Your task to perform on an android device: turn off location Image 0: 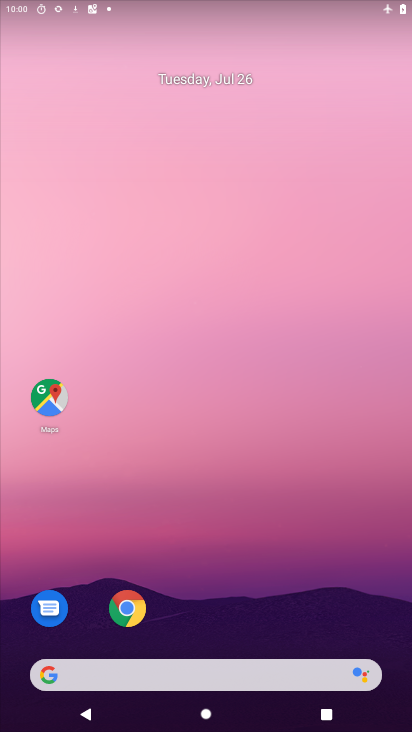
Step 0: drag from (226, 613) to (193, 132)
Your task to perform on an android device: turn off location Image 1: 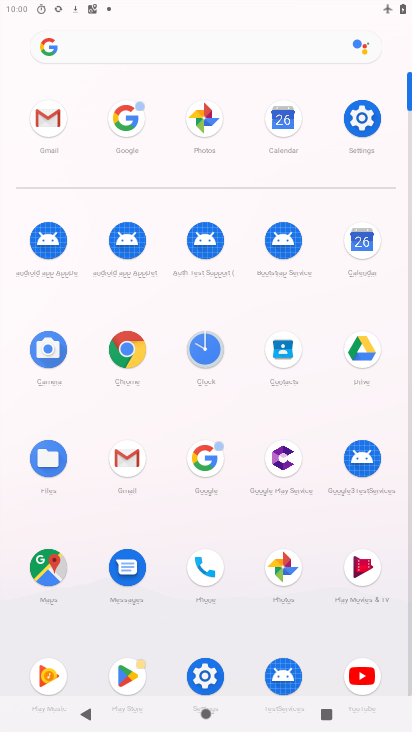
Step 1: click (364, 120)
Your task to perform on an android device: turn off location Image 2: 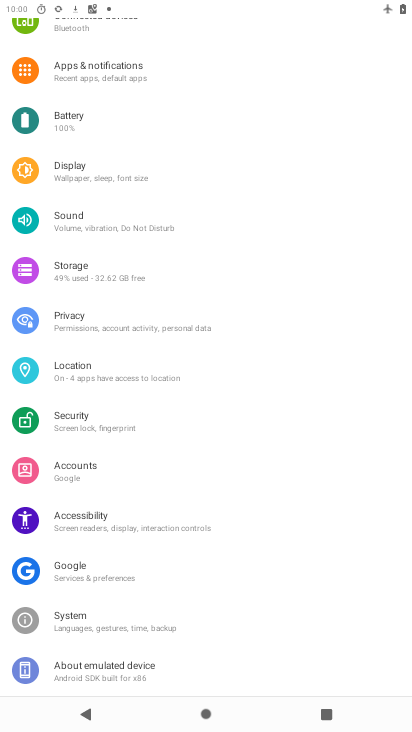
Step 2: click (92, 375)
Your task to perform on an android device: turn off location Image 3: 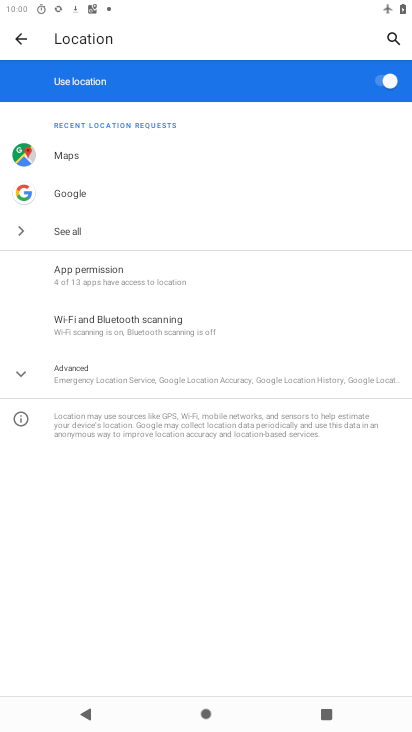
Step 3: click (376, 83)
Your task to perform on an android device: turn off location Image 4: 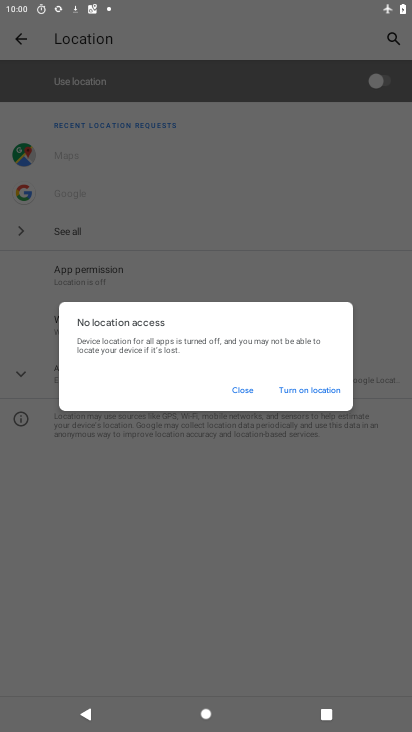
Step 4: click (319, 396)
Your task to perform on an android device: turn off location Image 5: 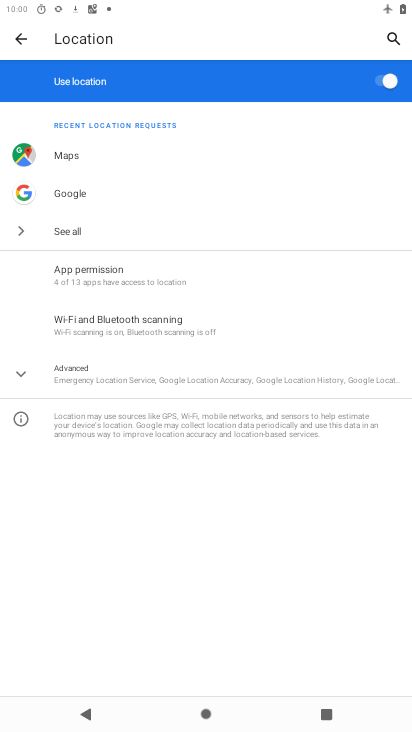
Step 5: task complete